Your task to perform on an android device: choose inbox layout in the gmail app Image 0: 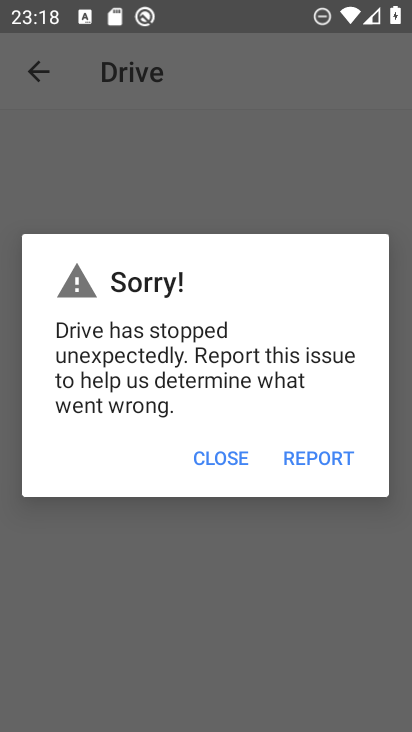
Step 0: press home button
Your task to perform on an android device: choose inbox layout in the gmail app Image 1: 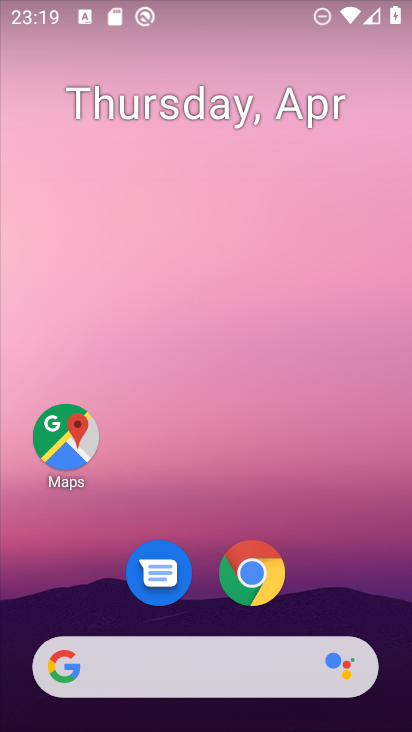
Step 1: drag from (332, 468) to (286, 41)
Your task to perform on an android device: choose inbox layout in the gmail app Image 2: 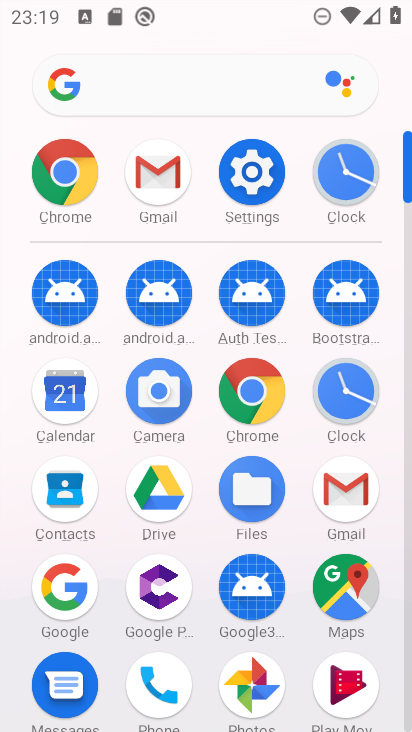
Step 2: click (342, 473)
Your task to perform on an android device: choose inbox layout in the gmail app Image 3: 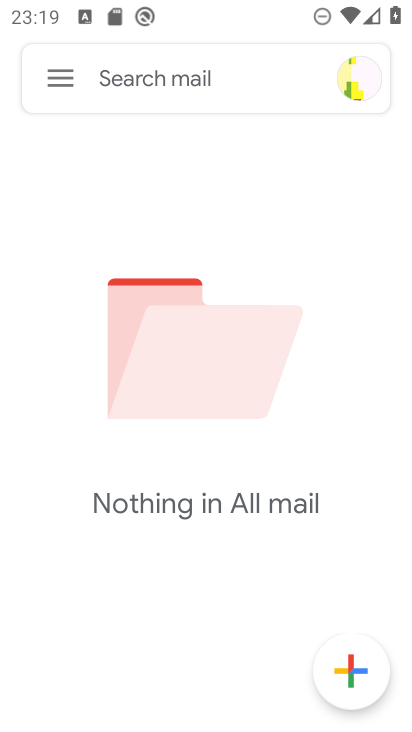
Step 3: click (46, 93)
Your task to perform on an android device: choose inbox layout in the gmail app Image 4: 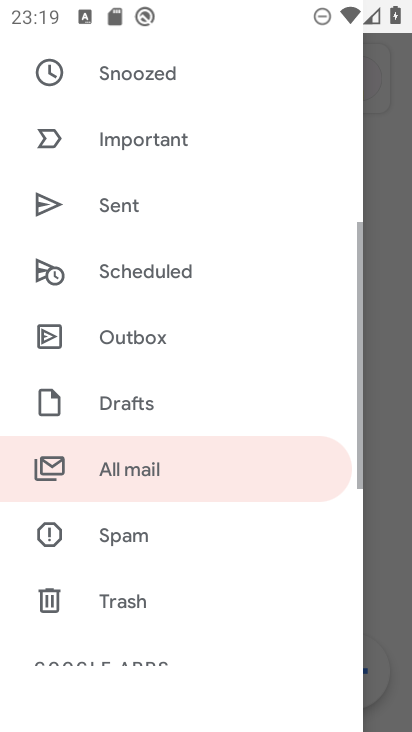
Step 4: drag from (205, 544) to (234, 50)
Your task to perform on an android device: choose inbox layout in the gmail app Image 5: 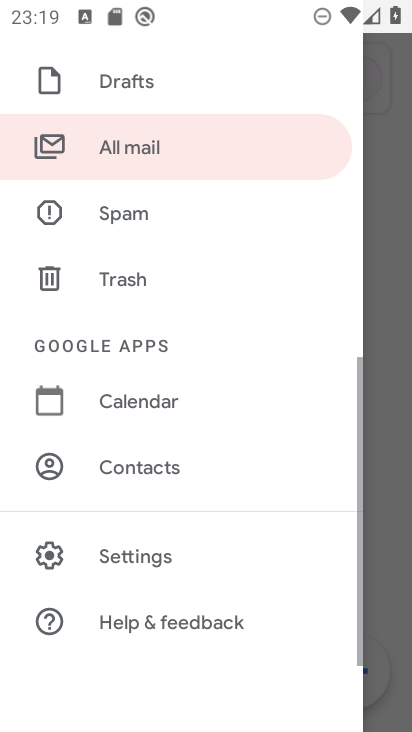
Step 5: click (190, 554)
Your task to perform on an android device: choose inbox layout in the gmail app Image 6: 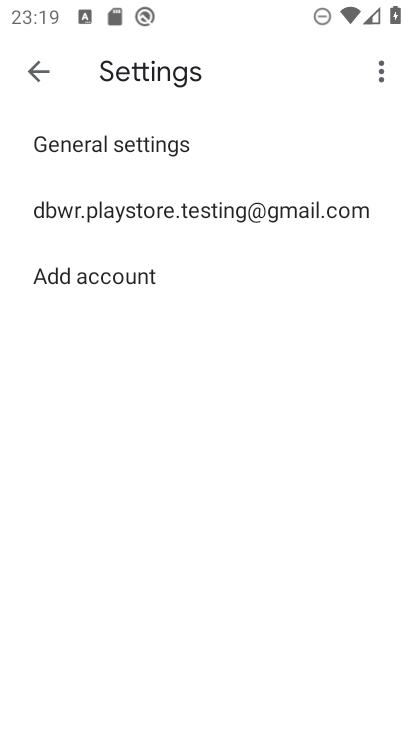
Step 6: click (192, 198)
Your task to perform on an android device: choose inbox layout in the gmail app Image 7: 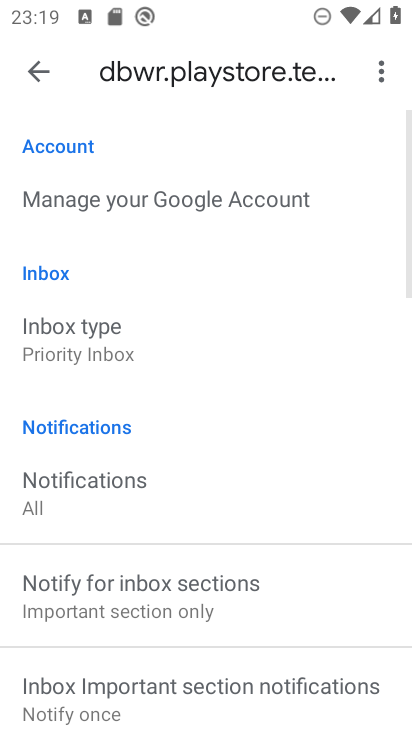
Step 7: click (194, 372)
Your task to perform on an android device: choose inbox layout in the gmail app Image 8: 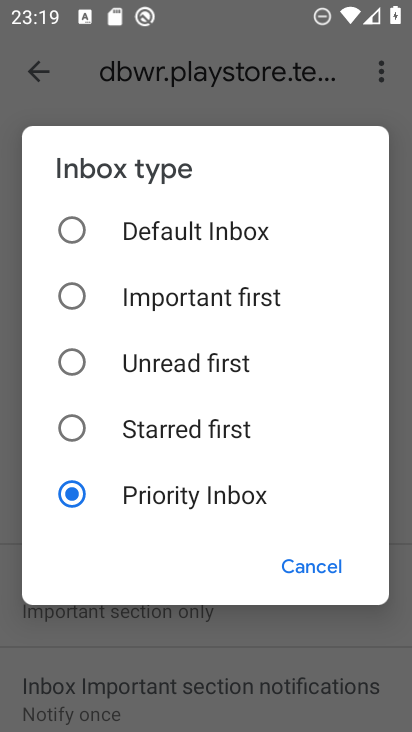
Step 8: task complete